Your task to perform on an android device: turn notification dots on Image 0: 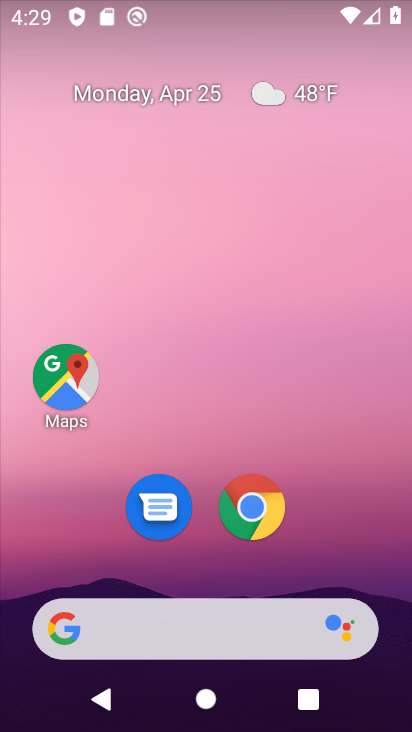
Step 0: drag from (179, 597) to (316, 74)
Your task to perform on an android device: turn notification dots on Image 1: 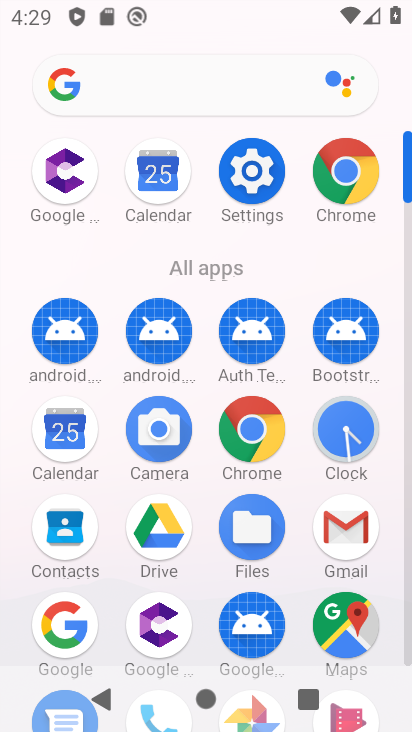
Step 1: drag from (198, 624) to (244, 366)
Your task to perform on an android device: turn notification dots on Image 2: 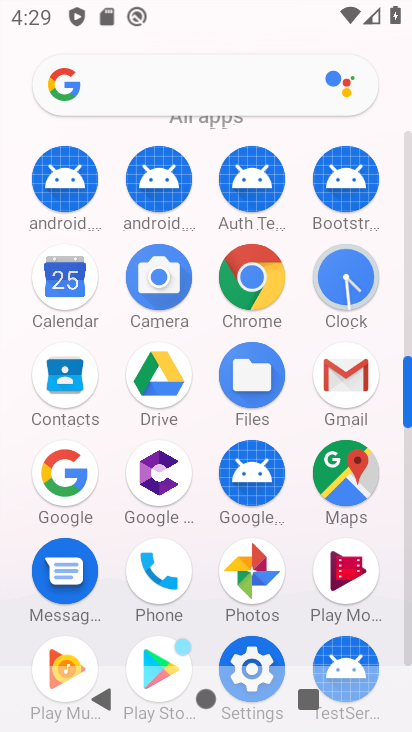
Step 2: click (249, 666)
Your task to perform on an android device: turn notification dots on Image 3: 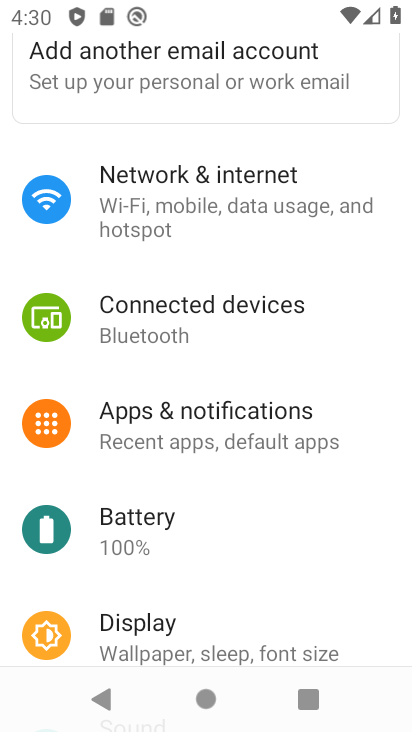
Step 3: click (236, 427)
Your task to perform on an android device: turn notification dots on Image 4: 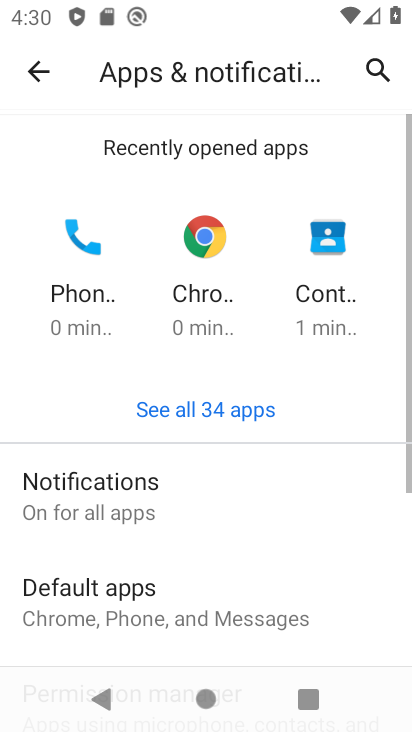
Step 4: click (200, 508)
Your task to perform on an android device: turn notification dots on Image 5: 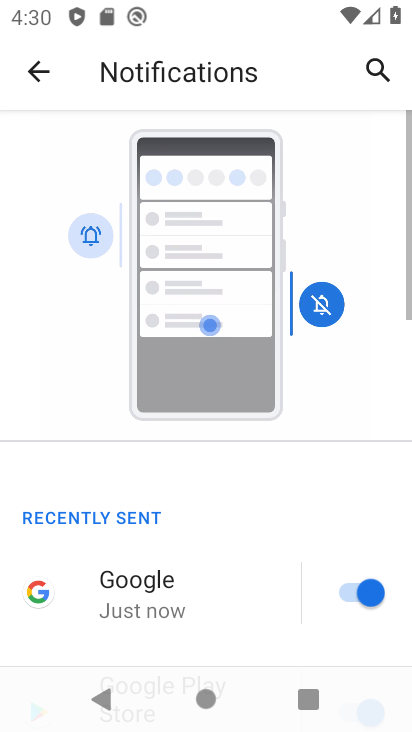
Step 5: drag from (204, 618) to (380, 87)
Your task to perform on an android device: turn notification dots on Image 6: 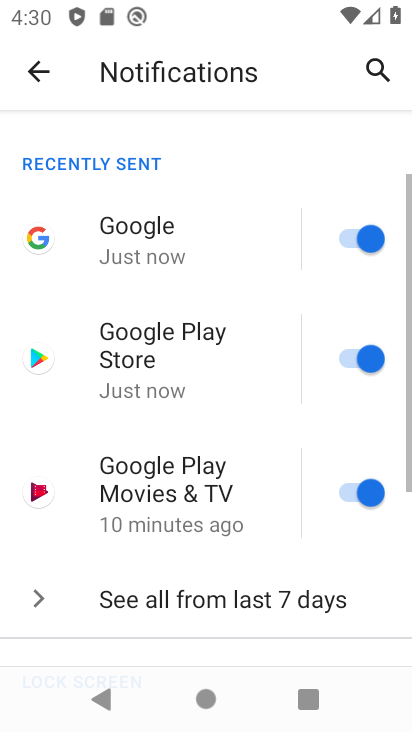
Step 6: drag from (198, 464) to (259, 208)
Your task to perform on an android device: turn notification dots on Image 7: 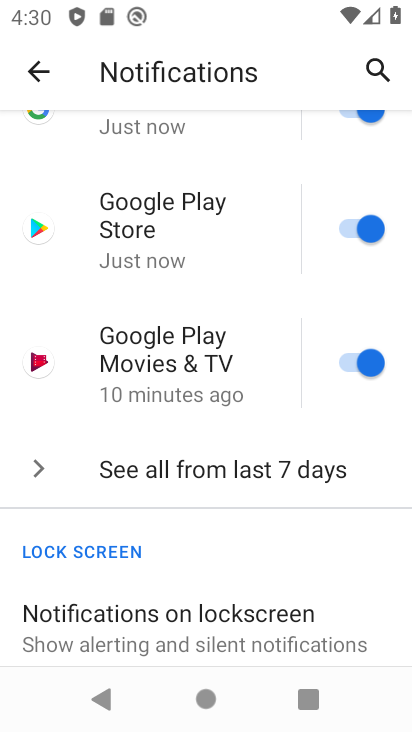
Step 7: drag from (209, 558) to (309, 153)
Your task to perform on an android device: turn notification dots on Image 8: 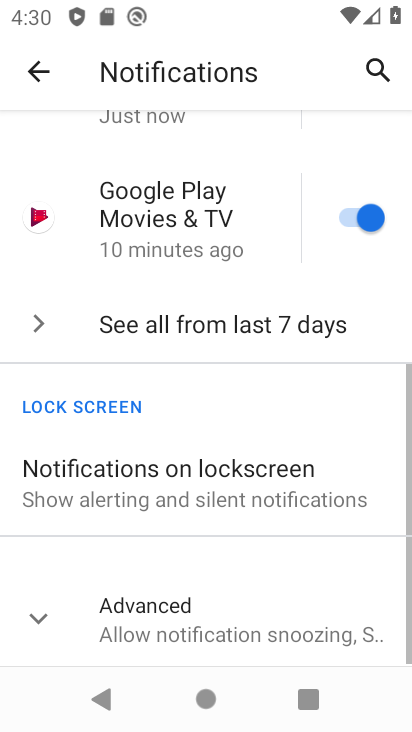
Step 8: click (181, 620)
Your task to perform on an android device: turn notification dots on Image 9: 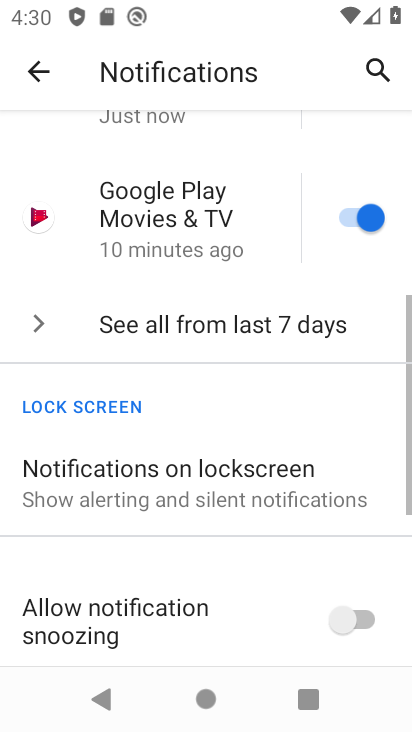
Step 9: task complete